Your task to perform on an android device: turn on improve location accuracy Image 0: 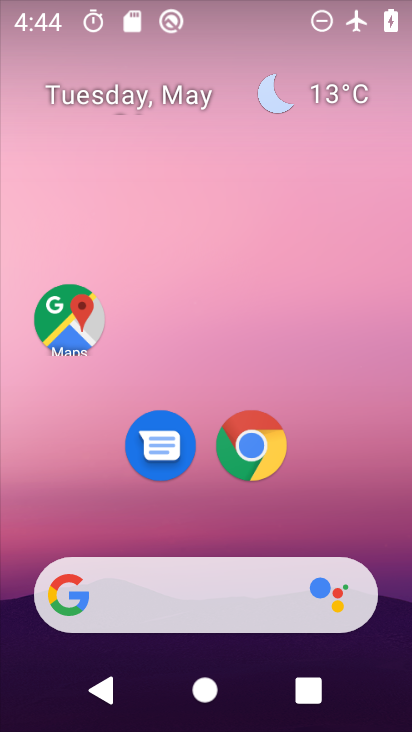
Step 0: drag from (209, 523) to (232, 30)
Your task to perform on an android device: turn on improve location accuracy Image 1: 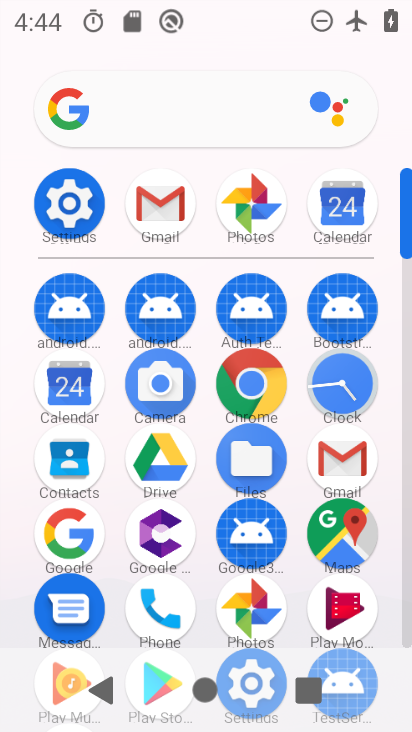
Step 1: click (70, 198)
Your task to perform on an android device: turn on improve location accuracy Image 2: 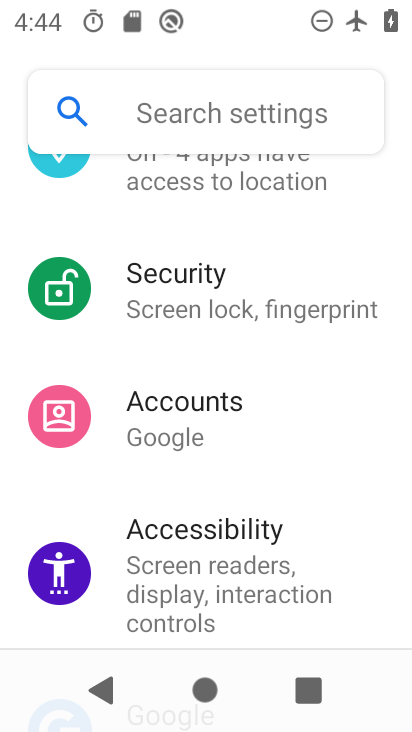
Step 2: drag from (167, 580) to (163, 224)
Your task to perform on an android device: turn on improve location accuracy Image 3: 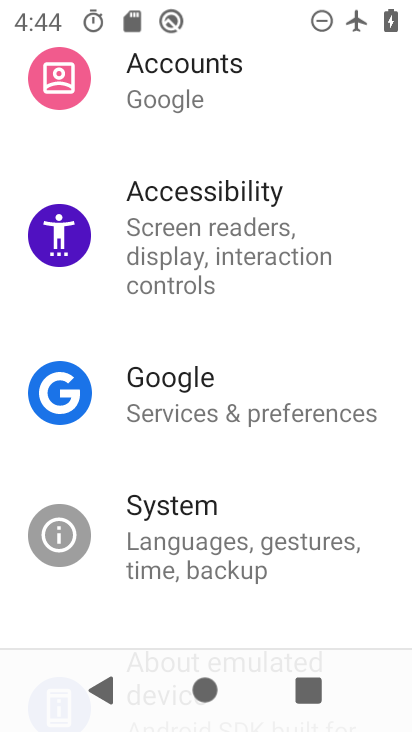
Step 3: drag from (198, 160) to (191, 642)
Your task to perform on an android device: turn on improve location accuracy Image 4: 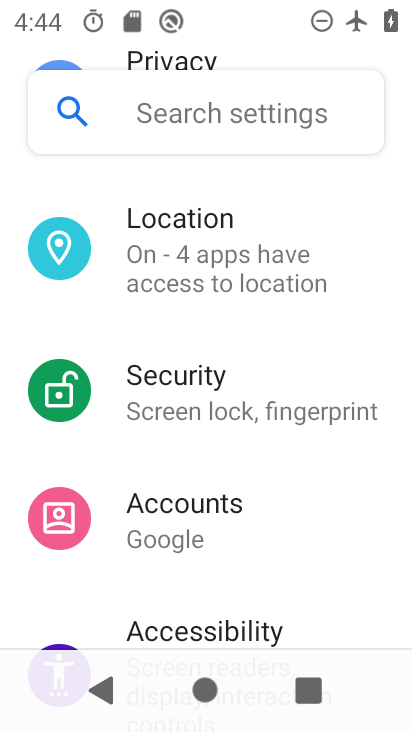
Step 4: click (169, 248)
Your task to perform on an android device: turn on improve location accuracy Image 5: 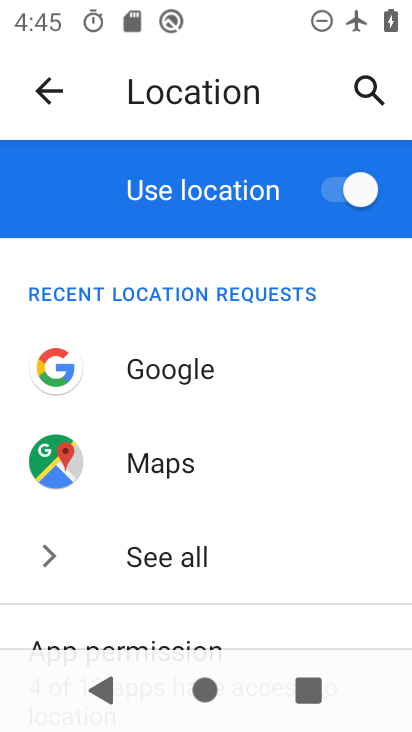
Step 5: drag from (212, 607) to (265, 272)
Your task to perform on an android device: turn on improve location accuracy Image 6: 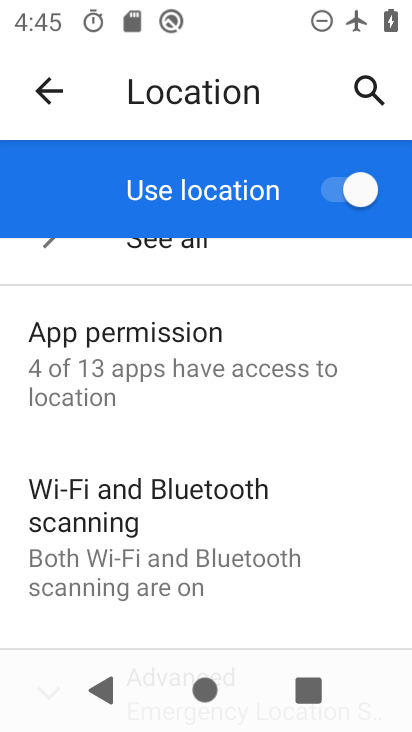
Step 6: drag from (225, 604) to (247, 215)
Your task to perform on an android device: turn on improve location accuracy Image 7: 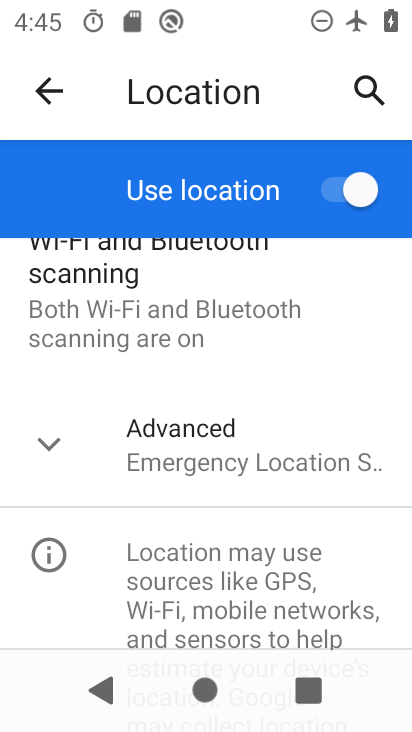
Step 7: click (48, 431)
Your task to perform on an android device: turn on improve location accuracy Image 8: 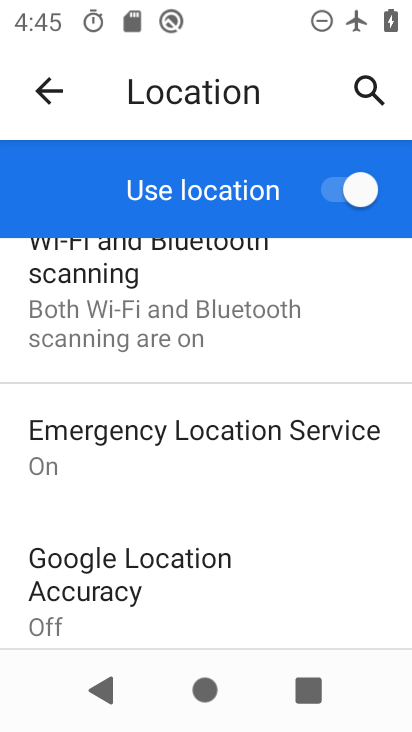
Step 8: click (195, 603)
Your task to perform on an android device: turn on improve location accuracy Image 9: 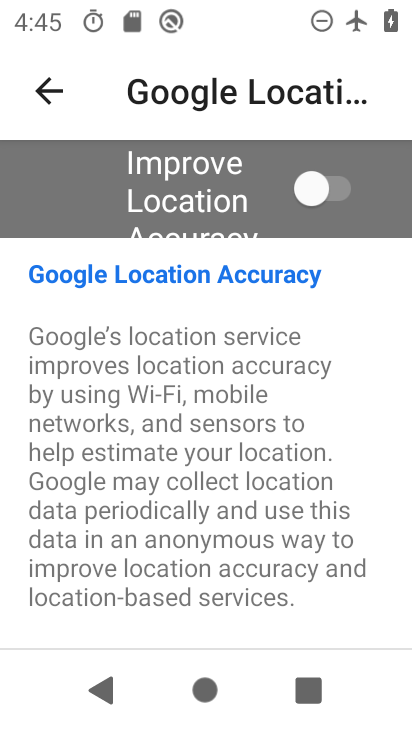
Step 9: click (330, 186)
Your task to perform on an android device: turn on improve location accuracy Image 10: 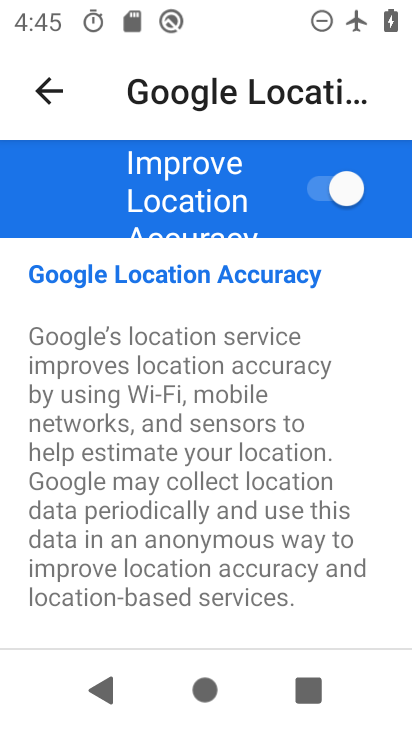
Step 10: task complete